Your task to perform on an android device: Turn off the flashlight Image 0: 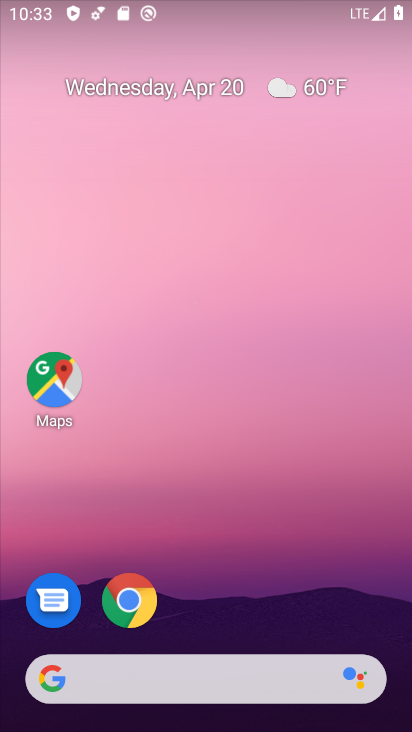
Step 0: drag from (259, 3) to (226, 535)
Your task to perform on an android device: Turn off the flashlight Image 1: 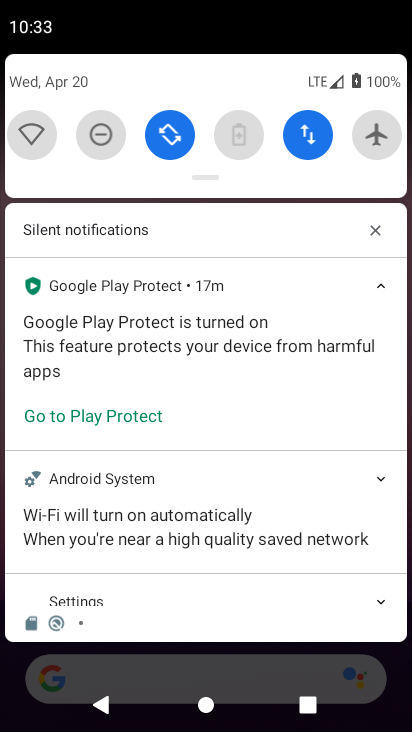
Step 1: task complete